Your task to perform on an android device: snooze an email in the gmail app Image 0: 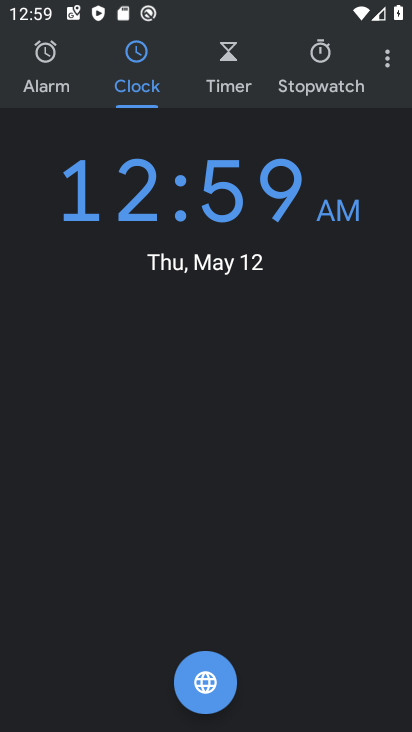
Step 0: press home button
Your task to perform on an android device: snooze an email in the gmail app Image 1: 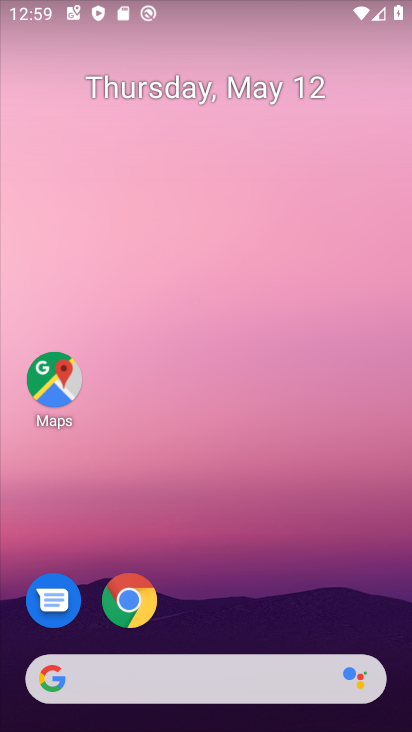
Step 1: drag from (278, 649) to (402, 134)
Your task to perform on an android device: snooze an email in the gmail app Image 2: 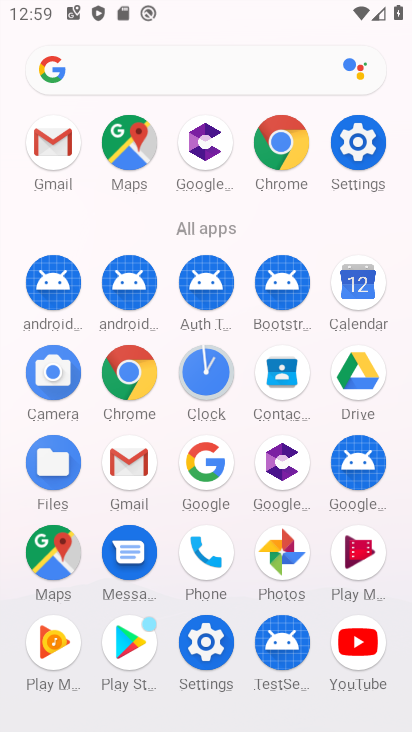
Step 2: click (101, 442)
Your task to perform on an android device: snooze an email in the gmail app Image 3: 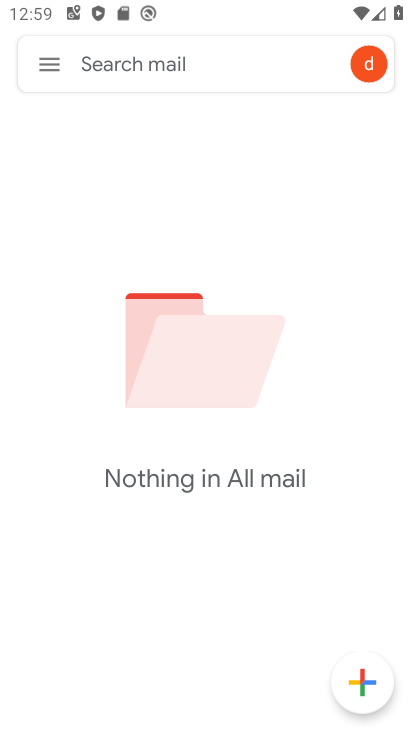
Step 3: click (48, 61)
Your task to perform on an android device: snooze an email in the gmail app Image 4: 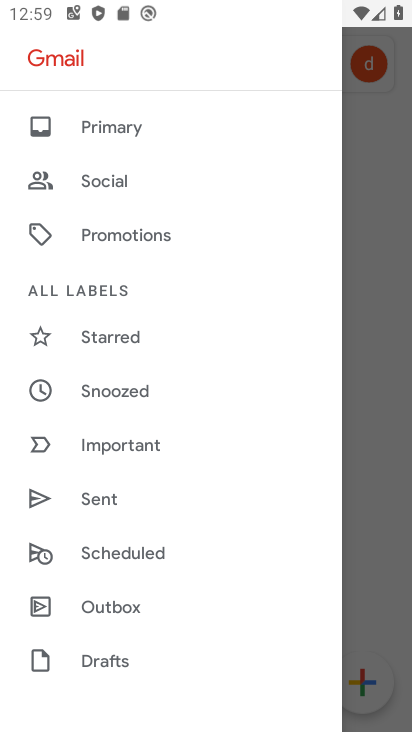
Step 4: click (375, 405)
Your task to perform on an android device: snooze an email in the gmail app Image 5: 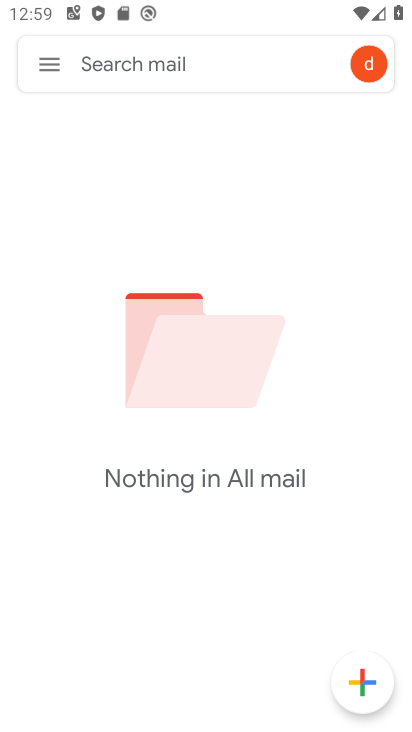
Step 5: task complete